Your task to perform on an android device: uninstall "Google Docs" Image 0: 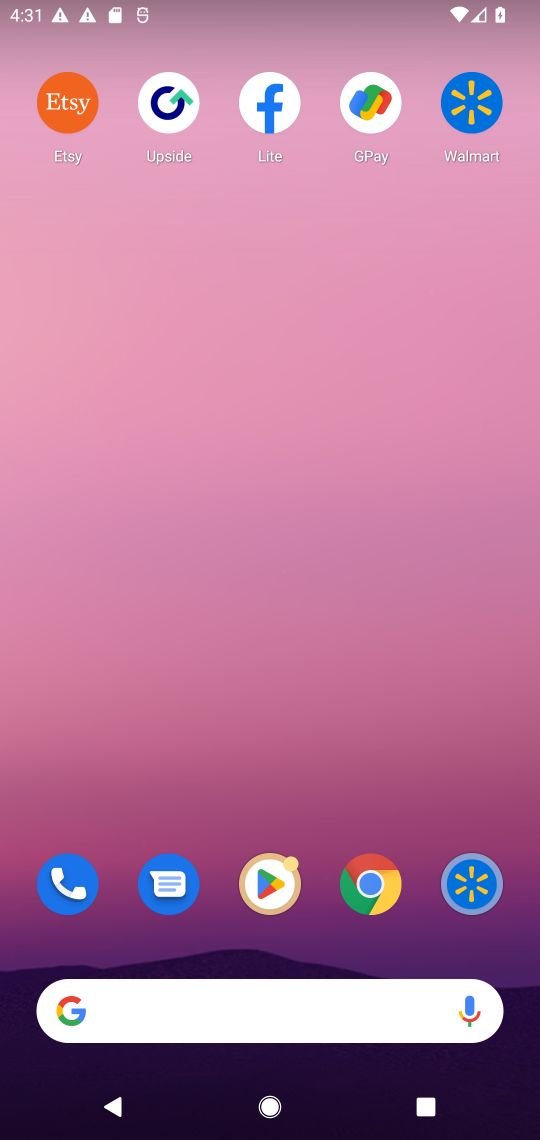
Step 0: click (278, 879)
Your task to perform on an android device: uninstall "Google Docs" Image 1: 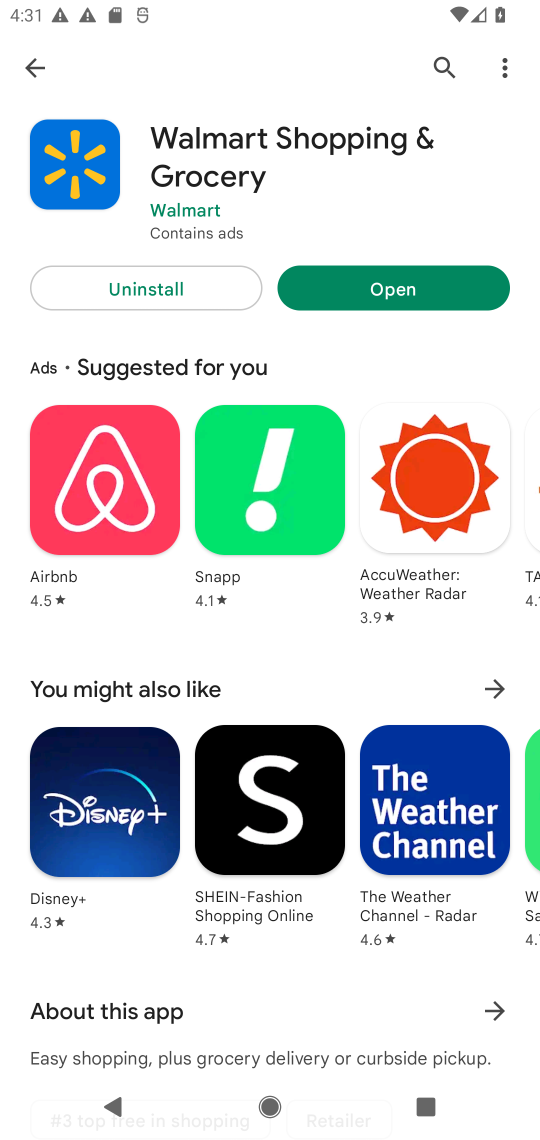
Step 1: click (34, 62)
Your task to perform on an android device: uninstall "Google Docs" Image 2: 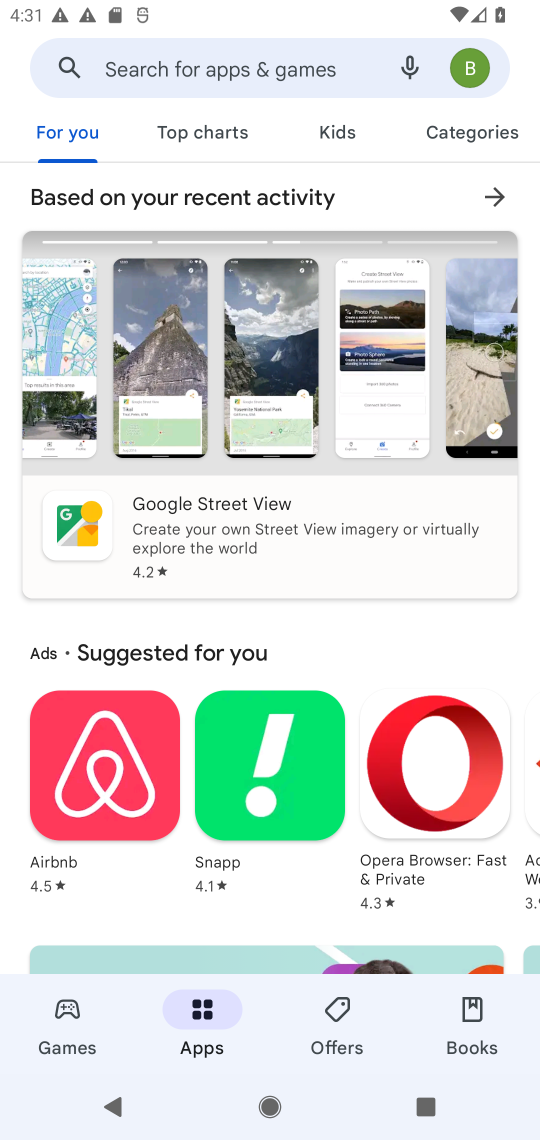
Step 2: click (183, 67)
Your task to perform on an android device: uninstall "Google Docs" Image 3: 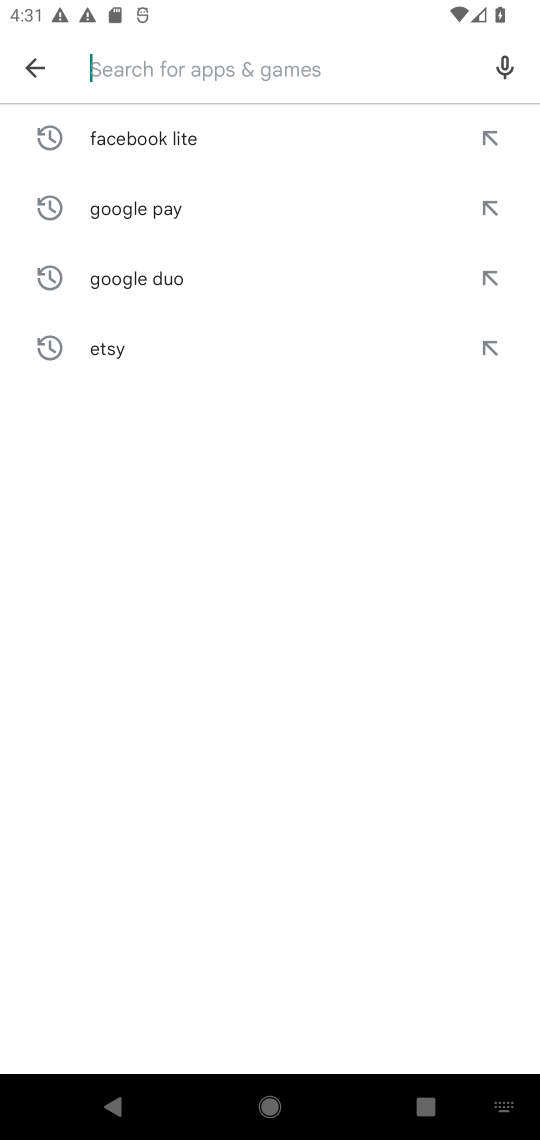
Step 3: type "Google Docs"
Your task to perform on an android device: uninstall "Google Docs" Image 4: 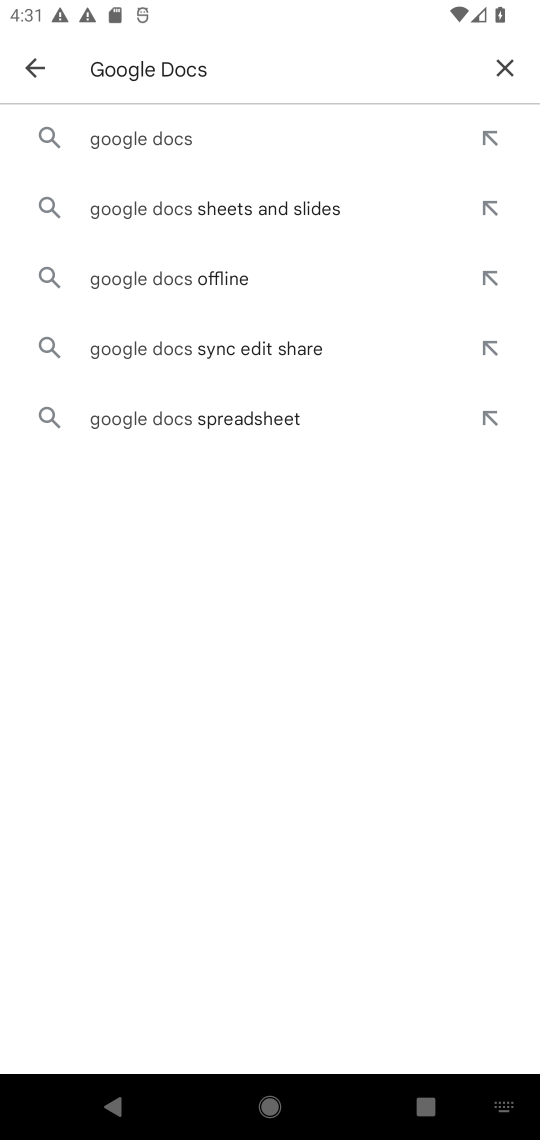
Step 4: click (161, 140)
Your task to perform on an android device: uninstall "Google Docs" Image 5: 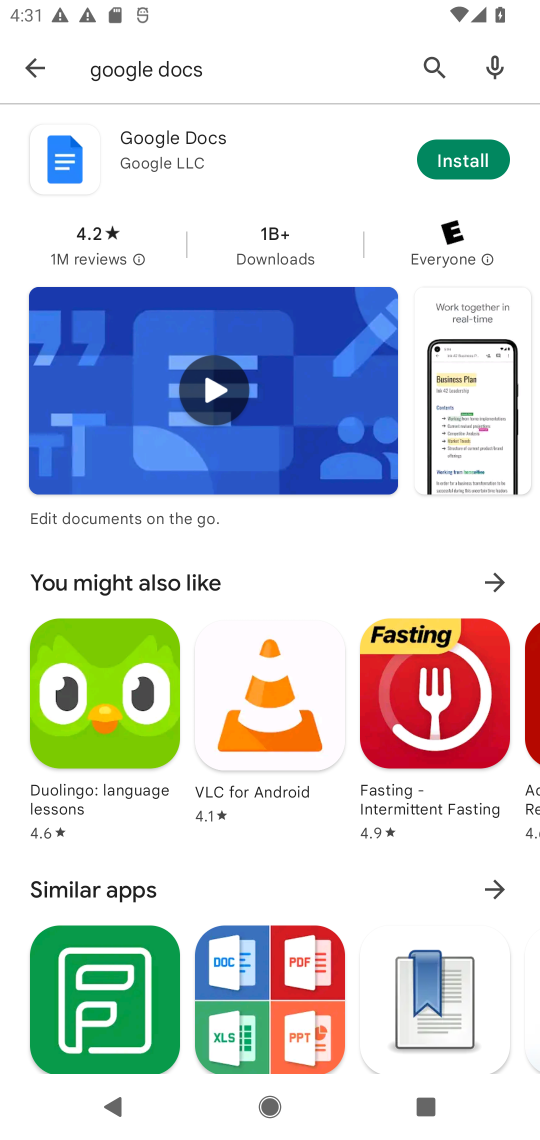
Step 5: task complete